Your task to perform on an android device: add a contact Image 0: 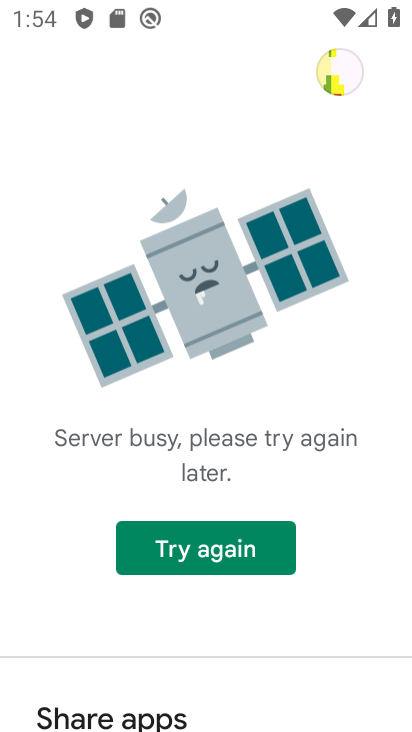
Step 0: press home button
Your task to perform on an android device: add a contact Image 1: 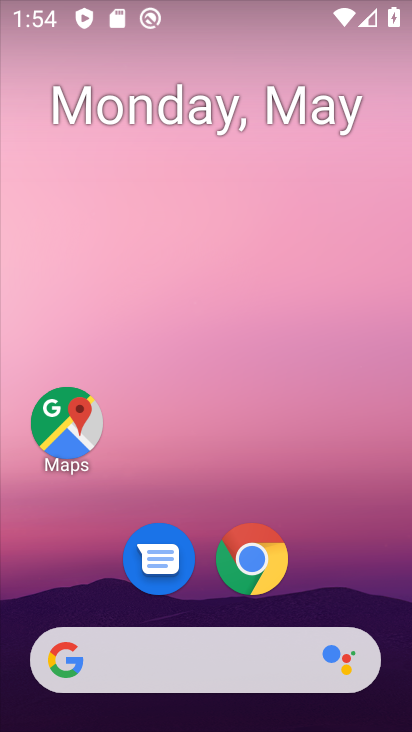
Step 1: drag from (333, 596) to (347, 3)
Your task to perform on an android device: add a contact Image 2: 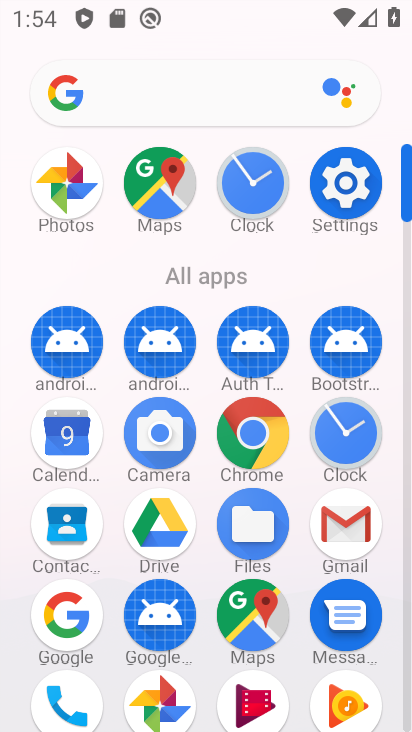
Step 2: click (59, 529)
Your task to perform on an android device: add a contact Image 3: 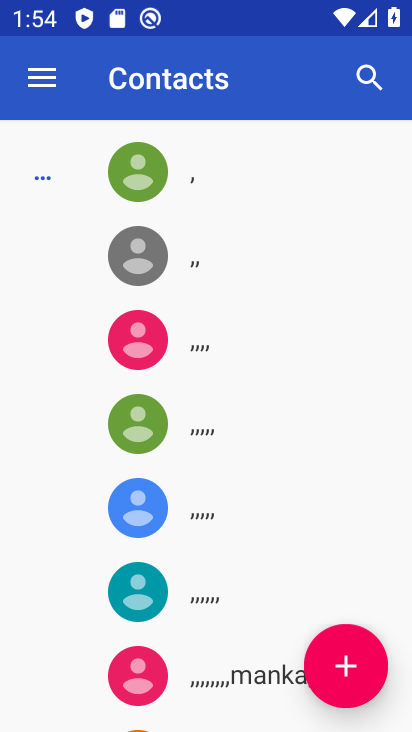
Step 3: click (347, 670)
Your task to perform on an android device: add a contact Image 4: 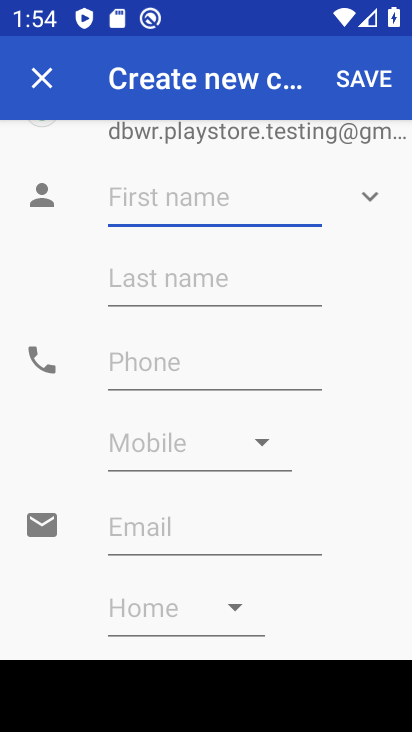
Step 4: click (117, 198)
Your task to perform on an android device: add a contact Image 5: 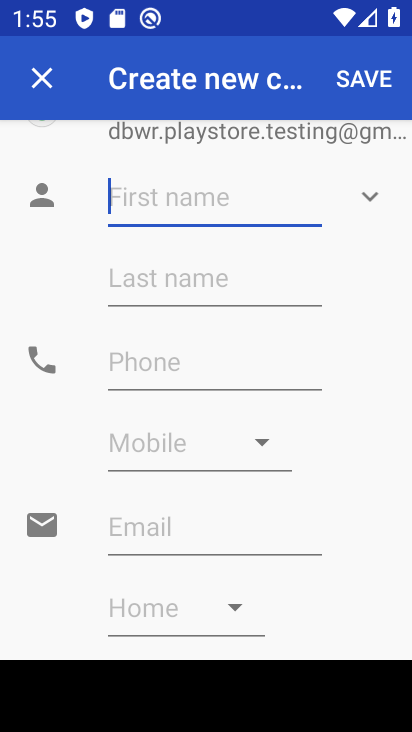
Step 5: click (181, 208)
Your task to perform on an android device: add a contact Image 6: 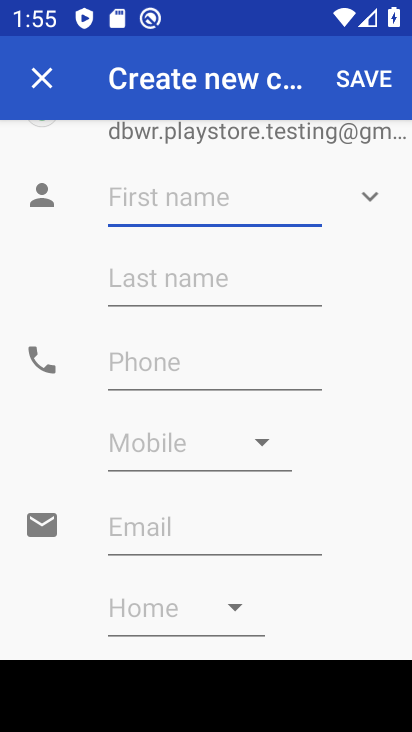
Step 6: type "mick"
Your task to perform on an android device: add a contact Image 7: 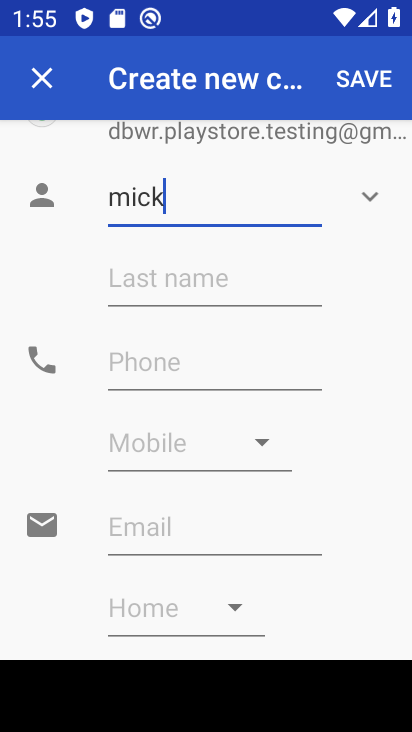
Step 7: click (189, 367)
Your task to perform on an android device: add a contact Image 8: 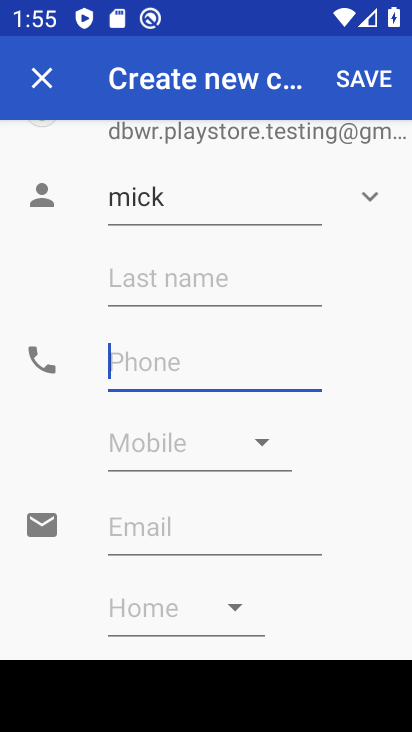
Step 8: type "658765789"
Your task to perform on an android device: add a contact Image 9: 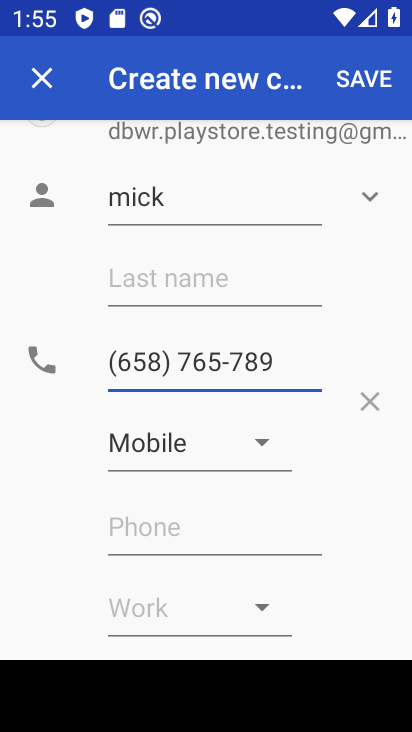
Step 9: click (351, 84)
Your task to perform on an android device: add a contact Image 10: 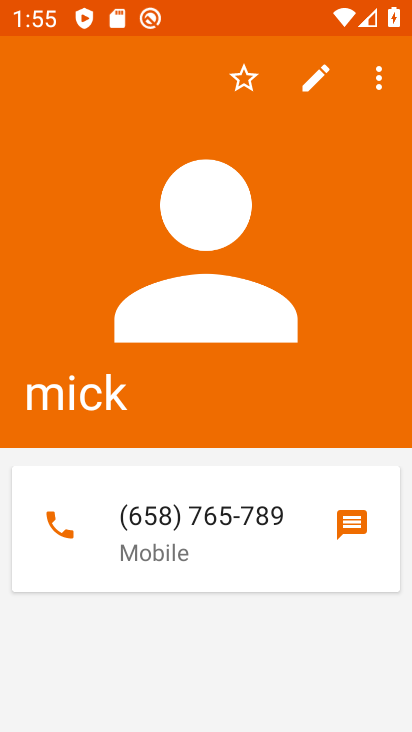
Step 10: task complete